Your task to perform on an android device: delete the emails in spam in the gmail app Image 0: 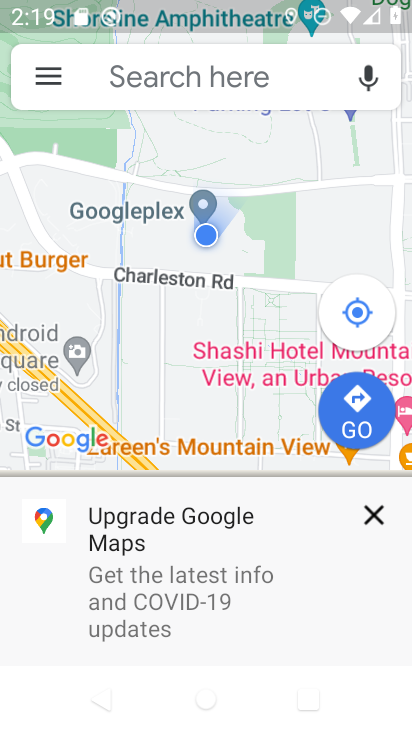
Step 0: press home button
Your task to perform on an android device: delete the emails in spam in the gmail app Image 1: 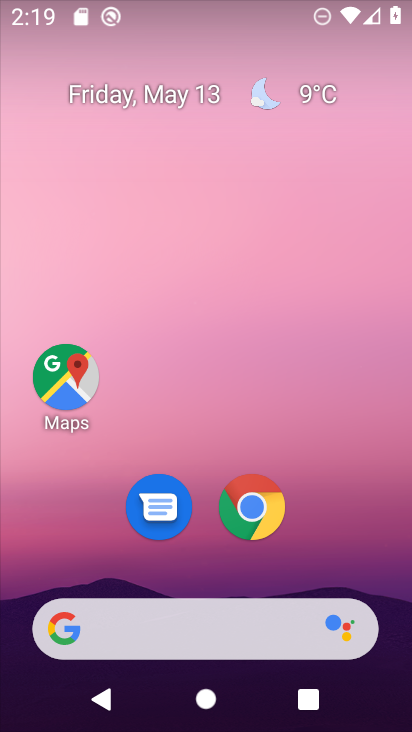
Step 1: drag from (338, 467) to (332, 58)
Your task to perform on an android device: delete the emails in spam in the gmail app Image 2: 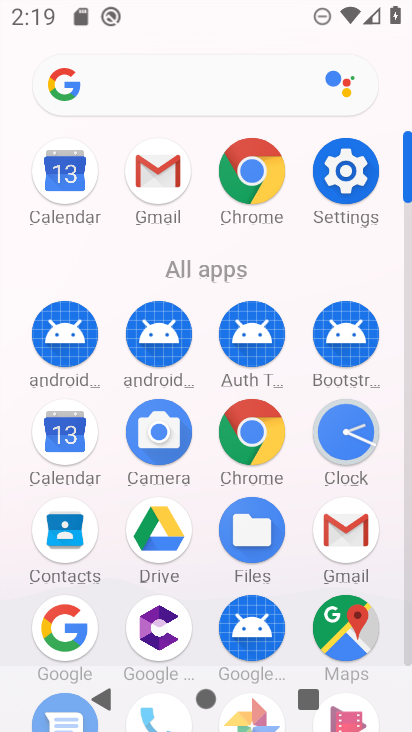
Step 2: click (157, 165)
Your task to perform on an android device: delete the emails in spam in the gmail app Image 3: 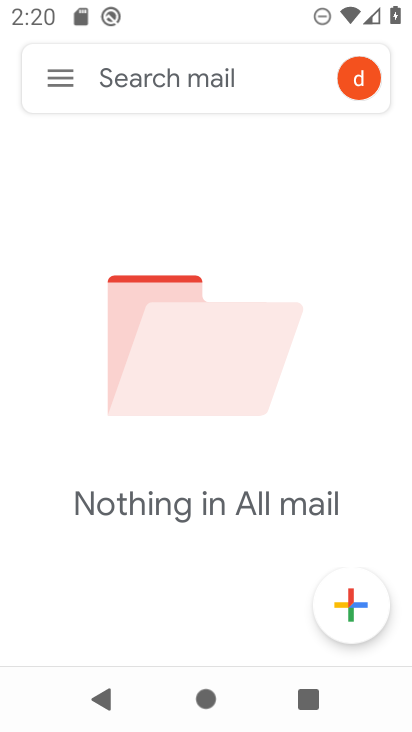
Step 3: click (59, 71)
Your task to perform on an android device: delete the emails in spam in the gmail app Image 4: 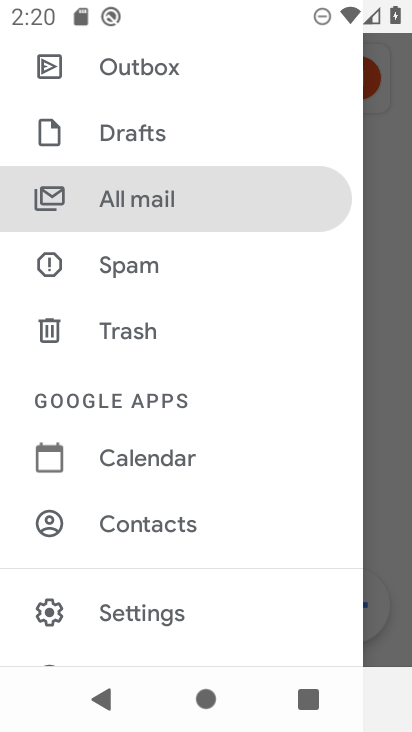
Step 4: drag from (148, 586) to (153, 180)
Your task to perform on an android device: delete the emails in spam in the gmail app Image 5: 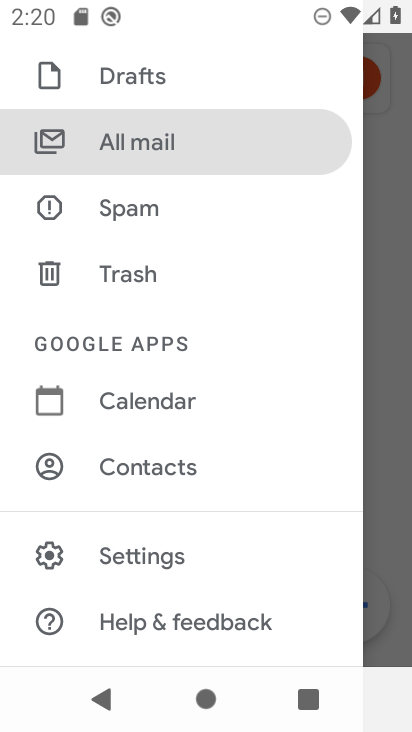
Step 5: drag from (104, 303) to (138, 515)
Your task to perform on an android device: delete the emails in spam in the gmail app Image 6: 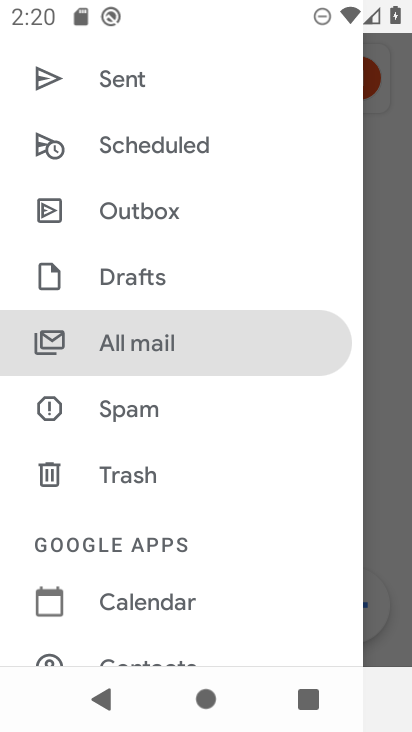
Step 6: click (109, 401)
Your task to perform on an android device: delete the emails in spam in the gmail app Image 7: 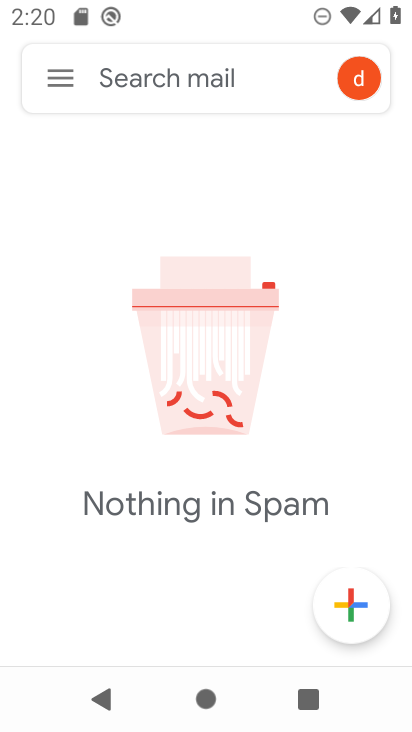
Step 7: task complete